Your task to perform on an android device: find which apps use the phone's location Image 0: 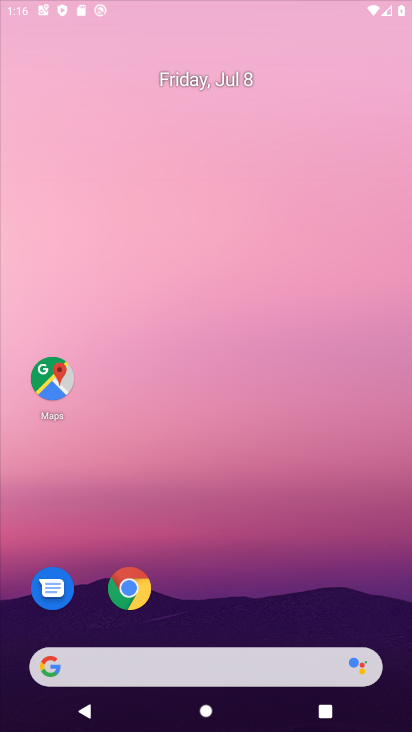
Step 0: drag from (199, 542) to (240, 111)
Your task to perform on an android device: find which apps use the phone's location Image 1: 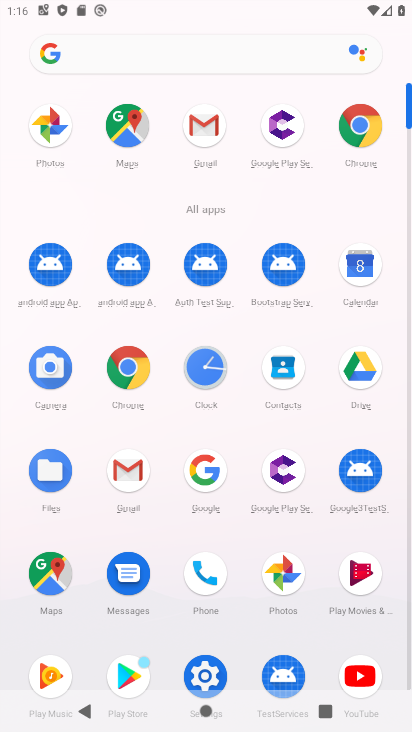
Step 1: click (215, 678)
Your task to perform on an android device: find which apps use the phone's location Image 2: 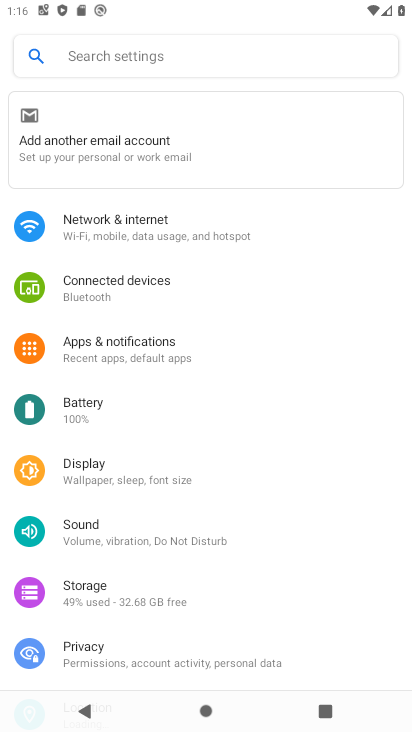
Step 2: drag from (98, 614) to (176, 311)
Your task to perform on an android device: find which apps use the phone's location Image 3: 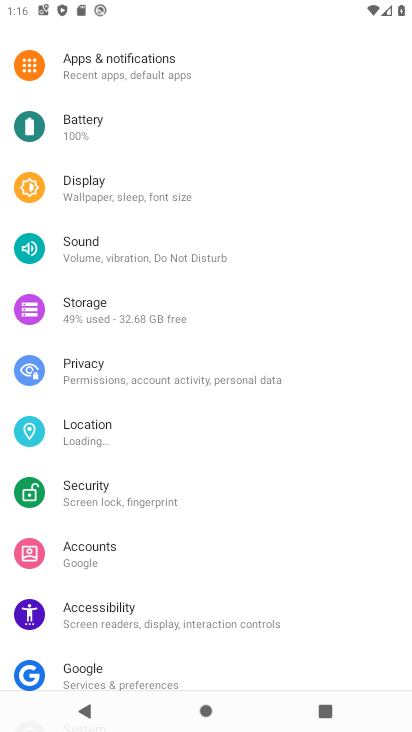
Step 3: click (116, 437)
Your task to perform on an android device: find which apps use the phone's location Image 4: 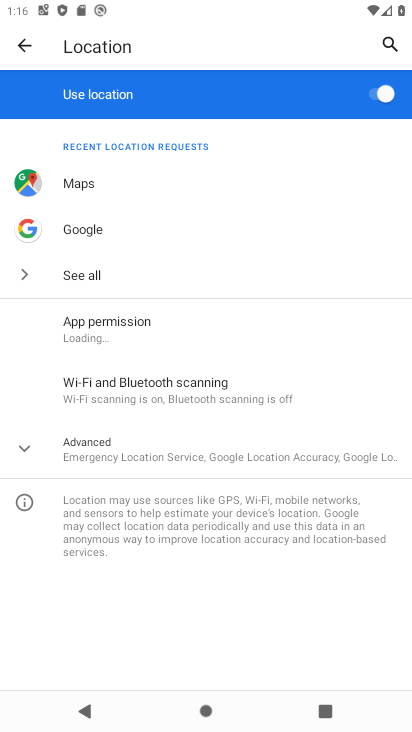
Step 4: click (133, 348)
Your task to perform on an android device: find which apps use the phone's location Image 5: 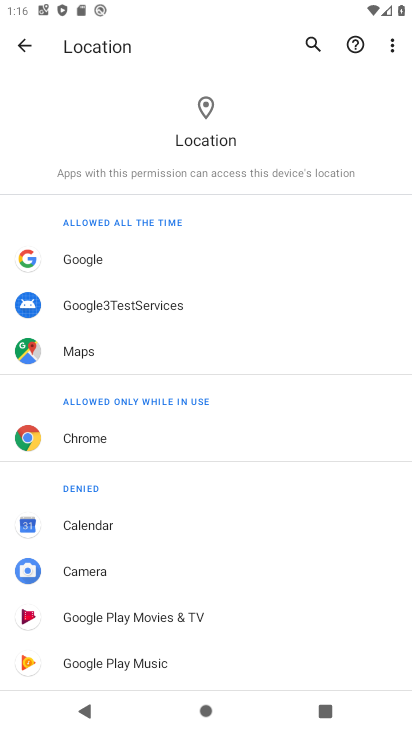
Step 5: task complete